Your task to perform on an android device: change the clock display to show seconds Image 0: 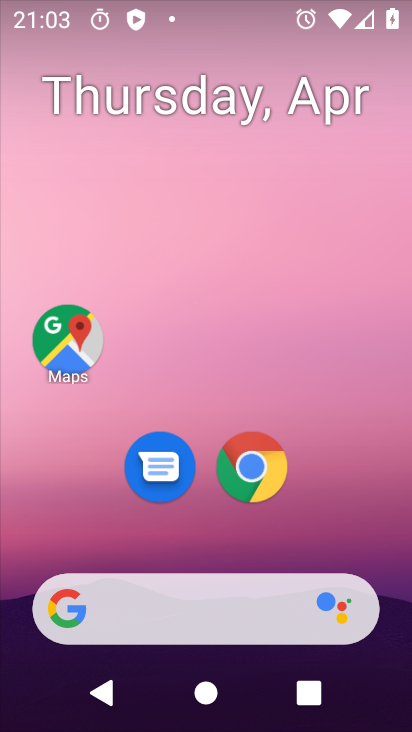
Step 0: drag from (229, 554) to (215, 49)
Your task to perform on an android device: change the clock display to show seconds Image 1: 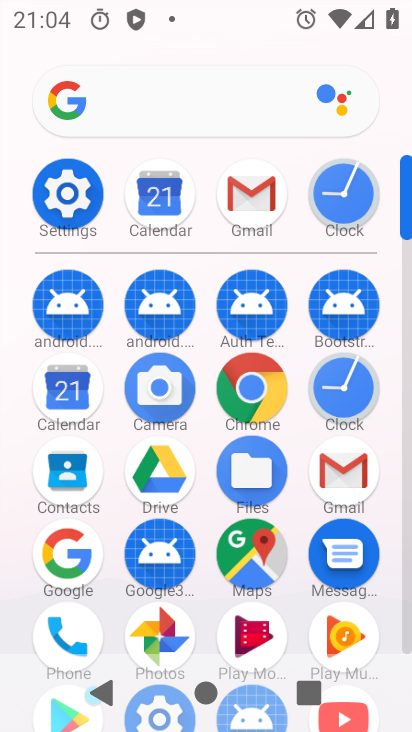
Step 1: click (346, 387)
Your task to perform on an android device: change the clock display to show seconds Image 2: 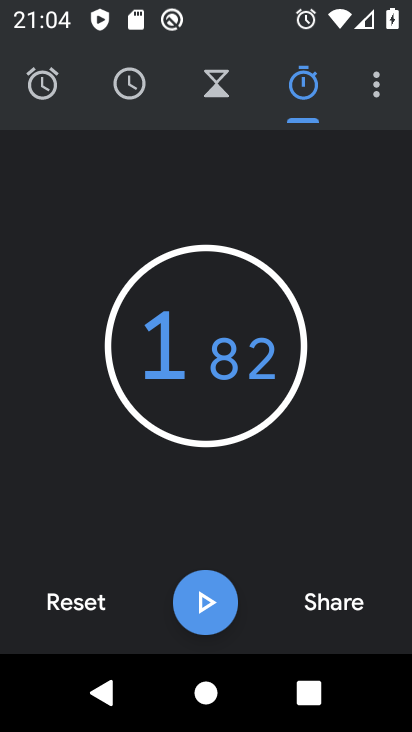
Step 2: click (370, 82)
Your task to perform on an android device: change the clock display to show seconds Image 3: 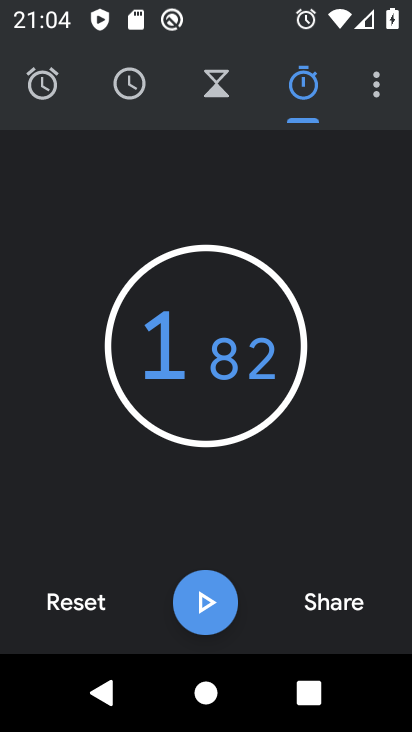
Step 3: click (376, 105)
Your task to perform on an android device: change the clock display to show seconds Image 4: 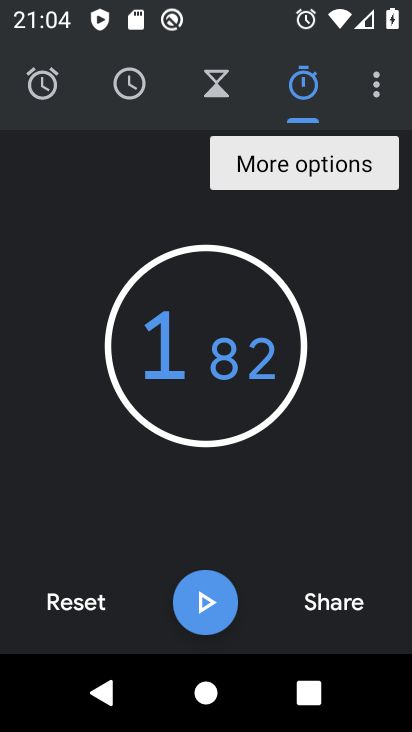
Step 4: click (336, 160)
Your task to perform on an android device: change the clock display to show seconds Image 5: 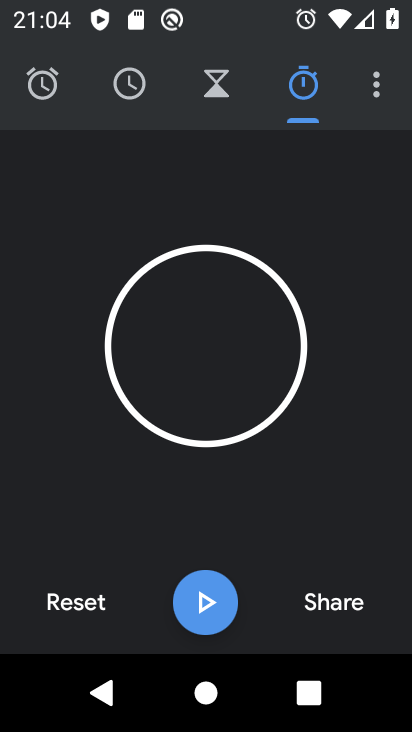
Step 5: click (374, 99)
Your task to perform on an android device: change the clock display to show seconds Image 6: 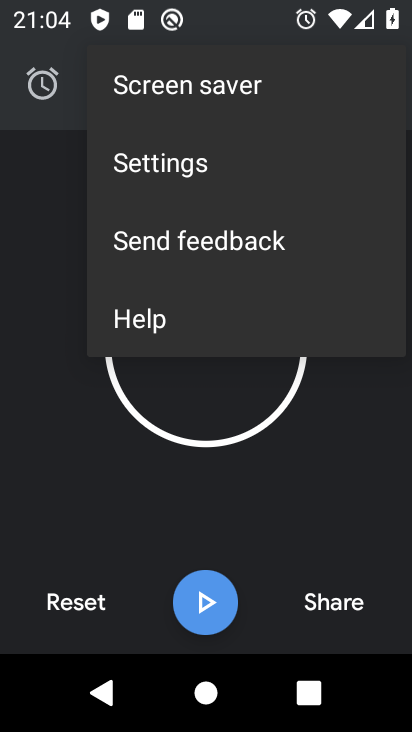
Step 6: click (178, 154)
Your task to perform on an android device: change the clock display to show seconds Image 7: 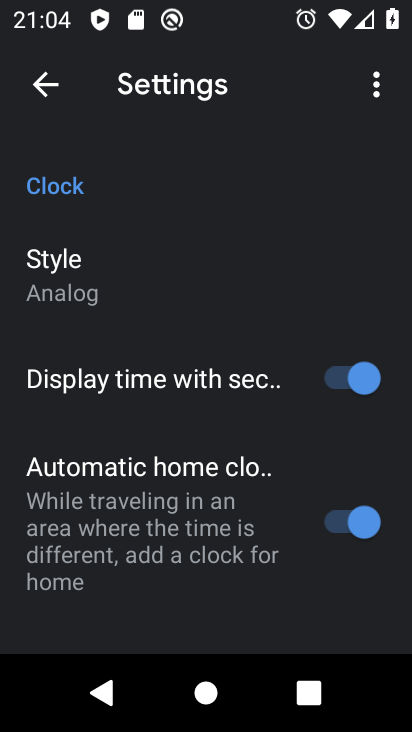
Step 7: task complete